Your task to perform on an android device: add a label to a message in the gmail app Image 0: 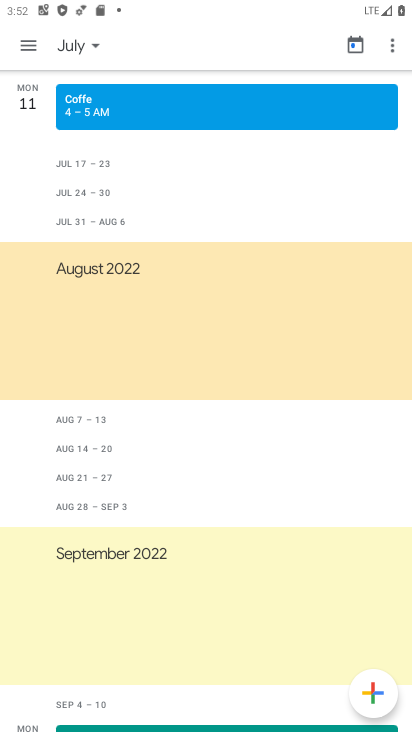
Step 0: press home button
Your task to perform on an android device: add a label to a message in the gmail app Image 1: 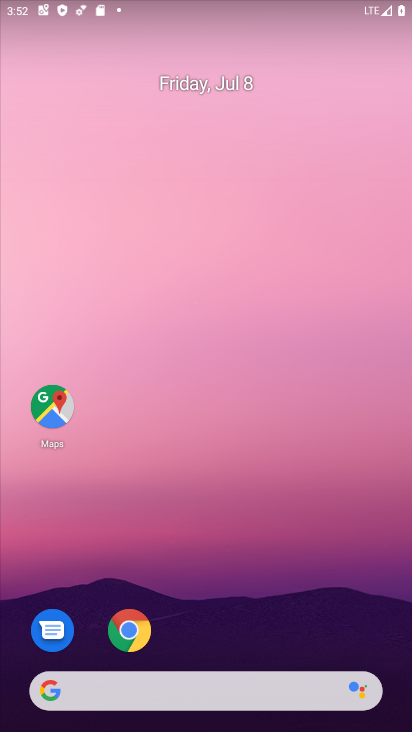
Step 1: drag from (197, 691) to (228, 83)
Your task to perform on an android device: add a label to a message in the gmail app Image 2: 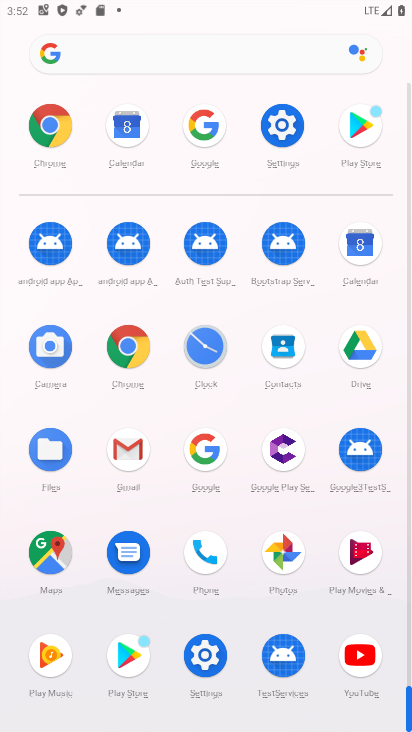
Step 2: click (126, 450)
Your task to perform on an android device: add a label to a message in the gmail app Image 3: 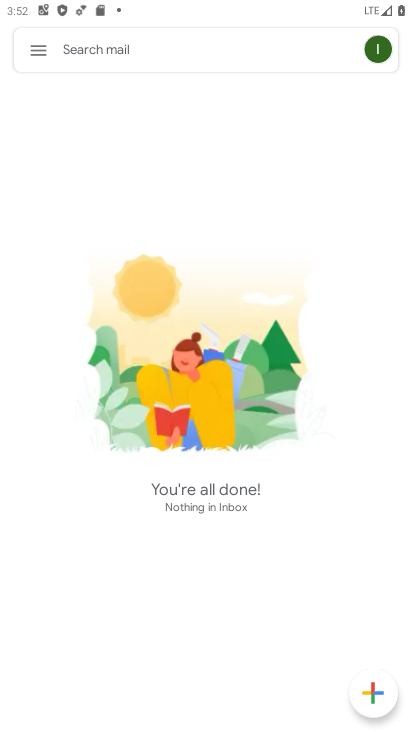
Step 3: click (29, 57)
Your task to perform on an android device: add a label to a message in the gmail app Image 4: 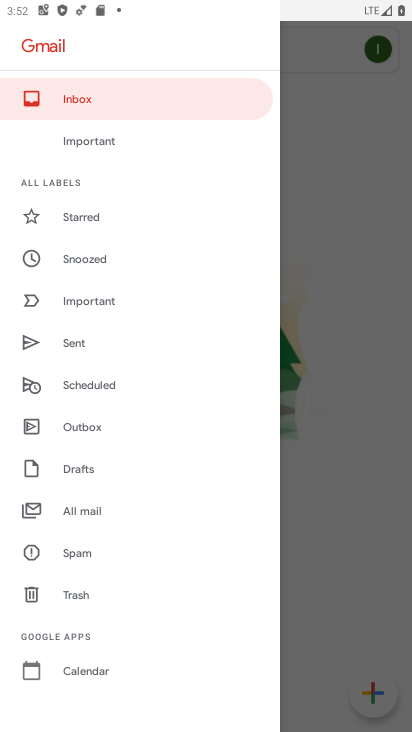
Step 4: drag from (80, 369) to (141, 280)
Your task to perform on an android device: add a label to a message in the gmail app Image 5: 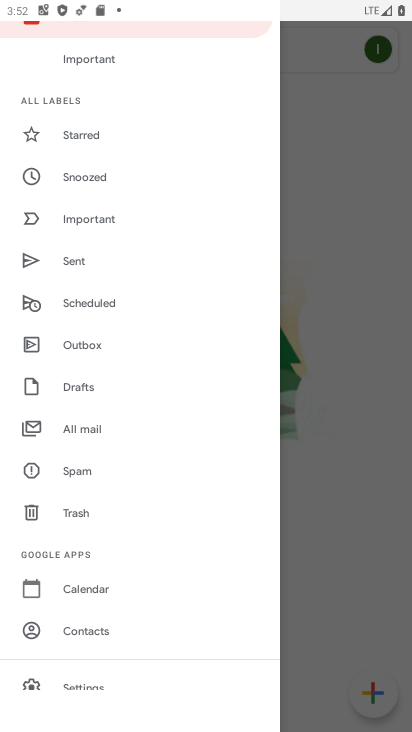
Step 5: drag from (115, 409) to (148, 357)
Your task to perform on an android device: add a label to a message in the gmail app Image 6: 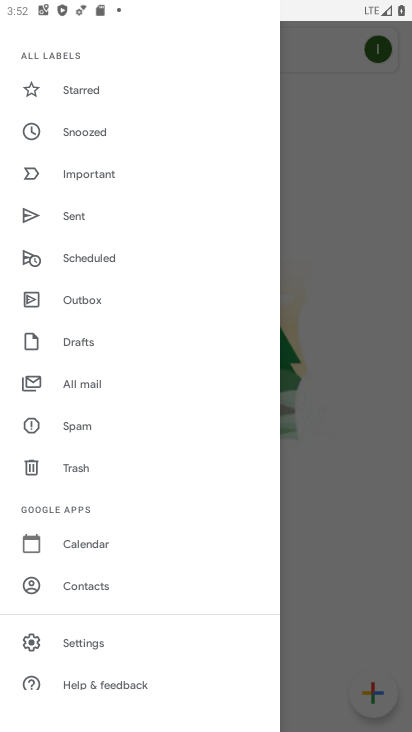
Step 6: click (104, 380)
Your task to perform on an android device: add a label to a message in the gmail app Image 7: 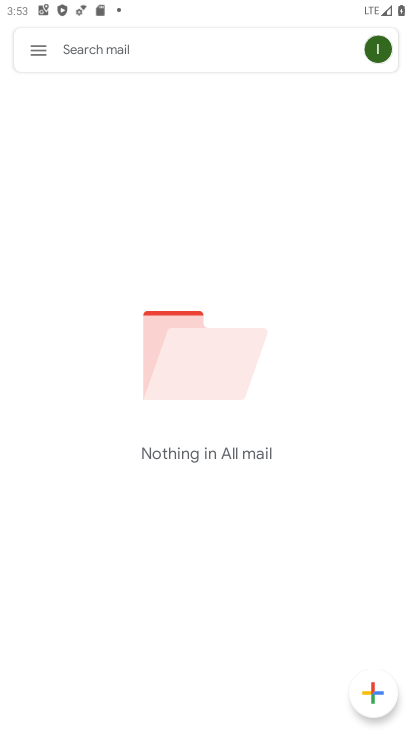
Step 7: click (36, 52)
Your task to perform on an android device: add a label to a message in the gmail app Image 8: 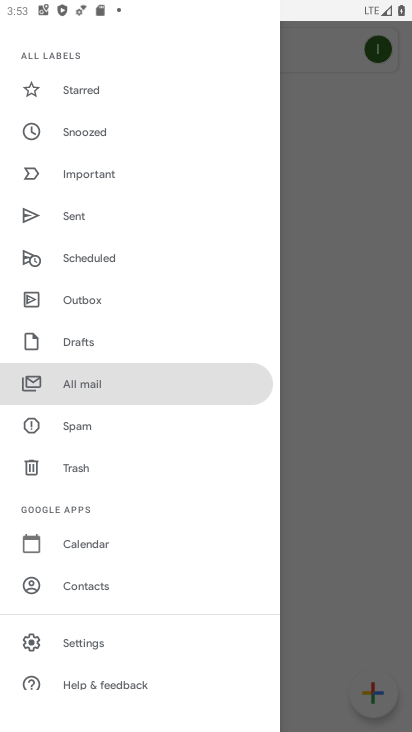
Step 8: click (88, 126)
Your task to perform on an android device: add a label to a message in the gmail app Image 9: 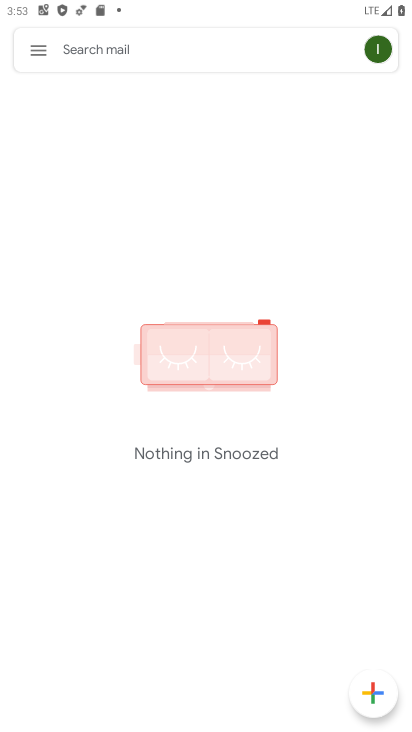
Step 9: click (34, 54)
Your task to perform on an android device: add a label to a message in the gmail app Image 10: 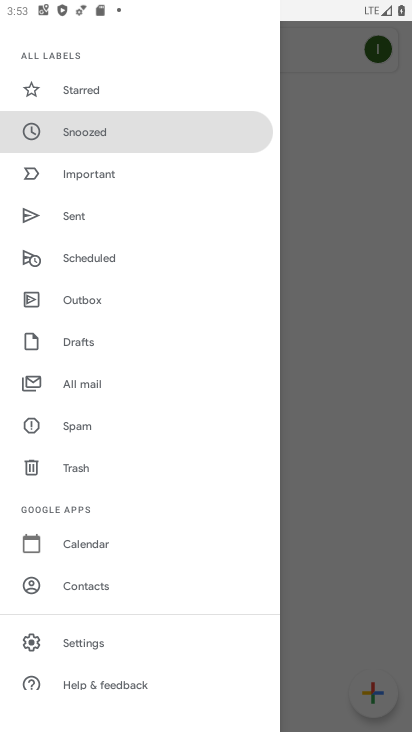
Step 10: click (89, 173)
Your task to perform on an android device: add a label to a message in the gmail app Image 11: 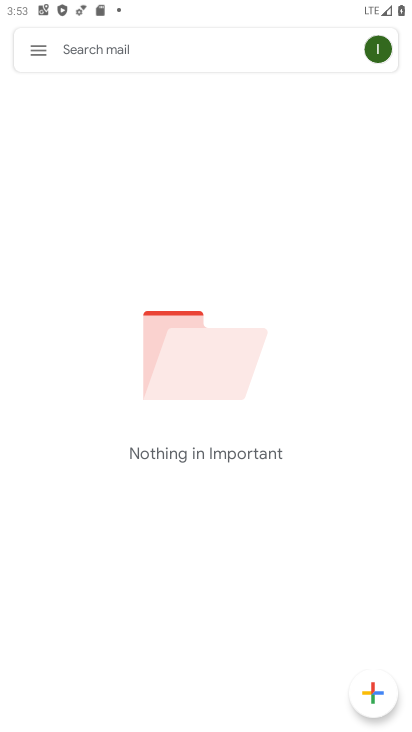
Step 11: click (37, 52)
Your task to perform on an android device: add a label to a message in the gmail app Image 12: 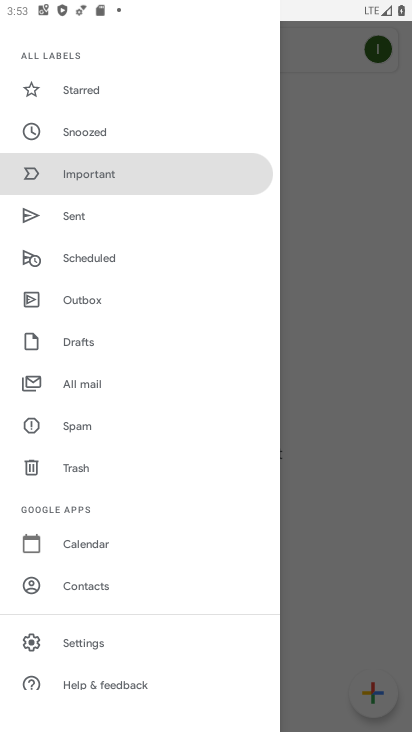
Step 12: click (81, 348)
Your task to perform on an android device: add a label to a message in the gmail app Image 13: 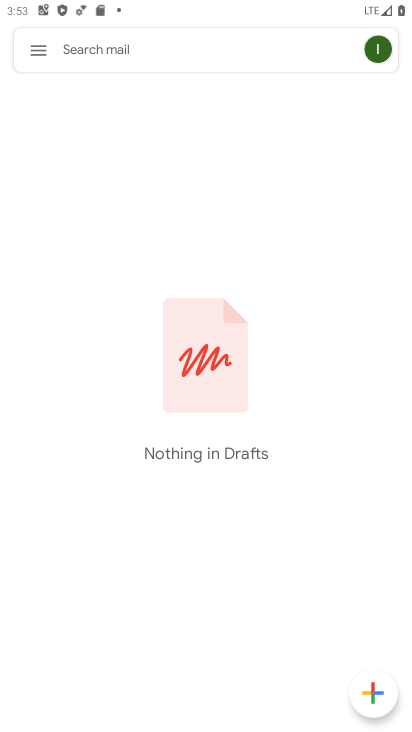
Step 13: task complete